Your task to perform on an android device: Turn off the flashlight Image 0: 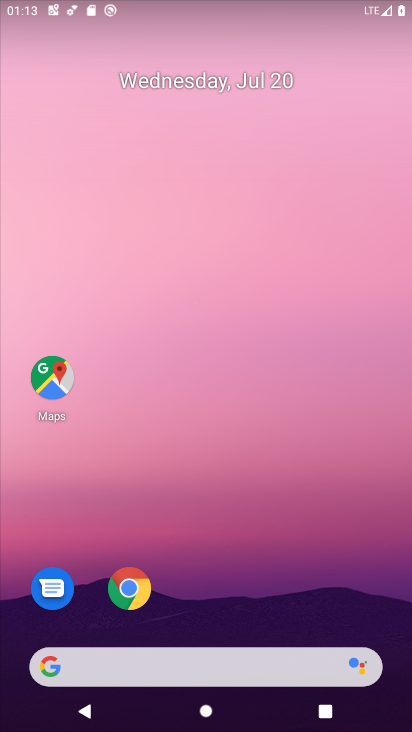
Step 0: drag from (244, 512) to (234, 321)
Your task to perform on an android device: Turn off the flashlight Image 1: 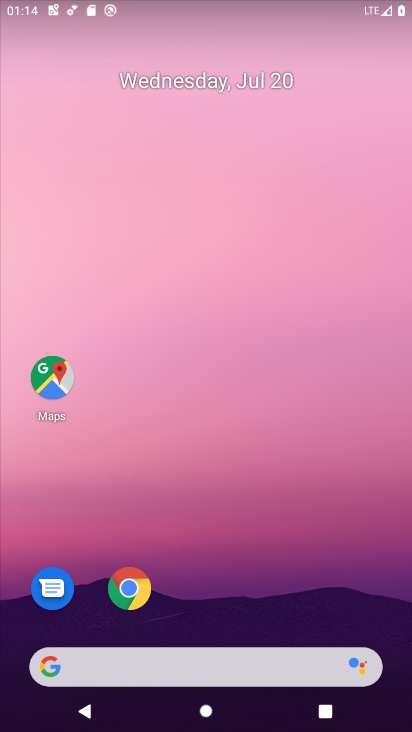
Step 1: drag from (280, 590) to (278, 302)
Your task to perform on an android device: Turn off the flashlight Image 2: 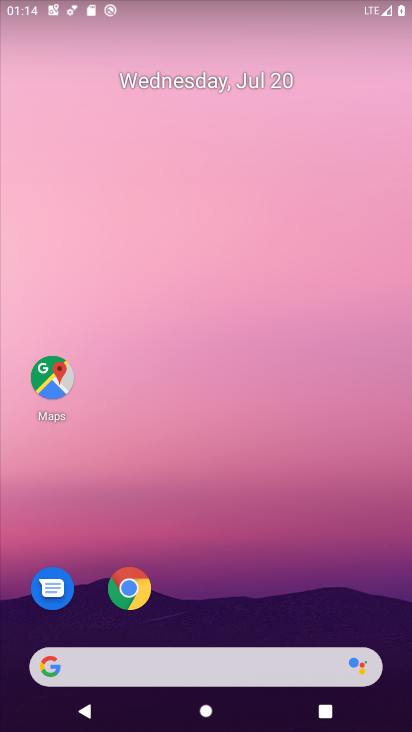
Step 2: drag from (217, 575) to (235, 117)
Your task to perform on an android device: Turn off the flashlight Image 3: 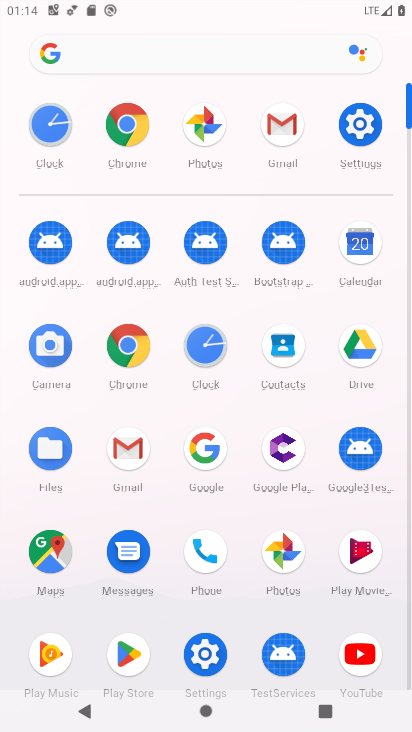
Step 3: click (348, 115)
Your task to perform on an android device: Turn off the flashlight Image 4: 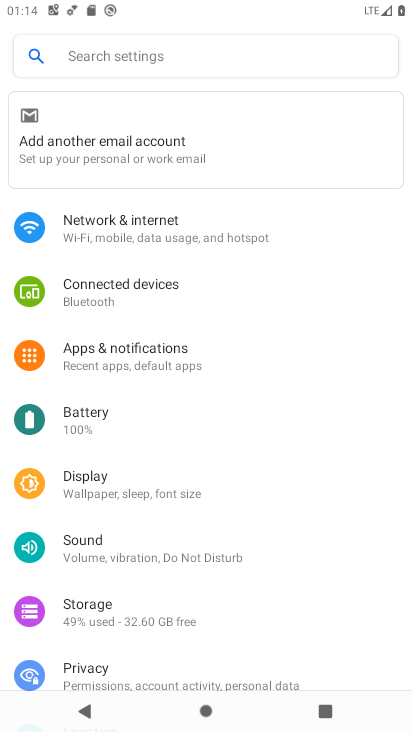
Step 4: task complete